Your task to perform on an android device: Go to accessibility settings Image 0: 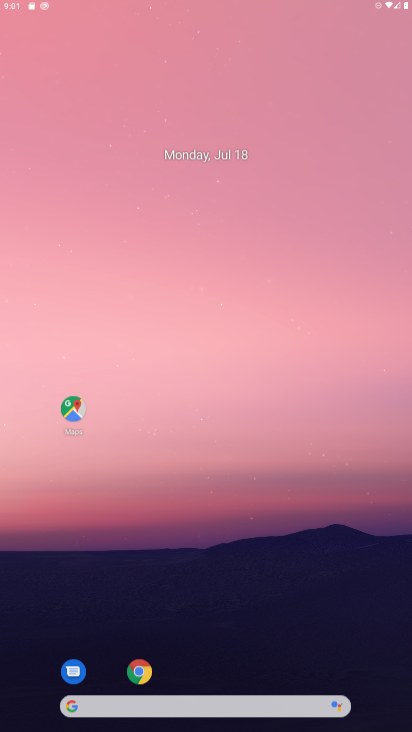
Step 0: press home button
Your task to perform on an android device: Go to accessibility settings Image 1: 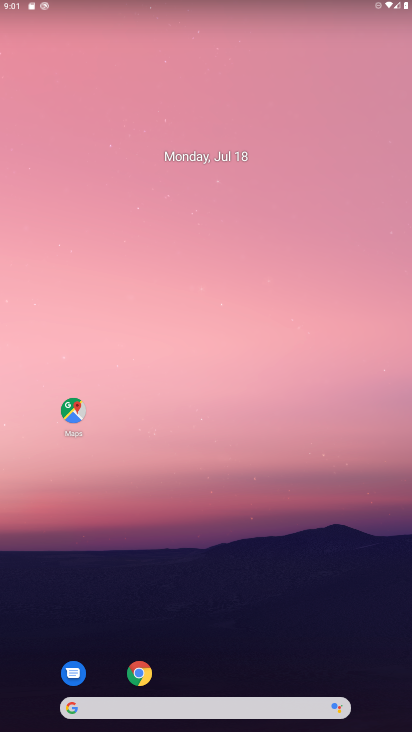
Step 1: drag from (274, 605) to (276, 69)
Your task to perform on an android device: Go to accessibility settings Image 2: 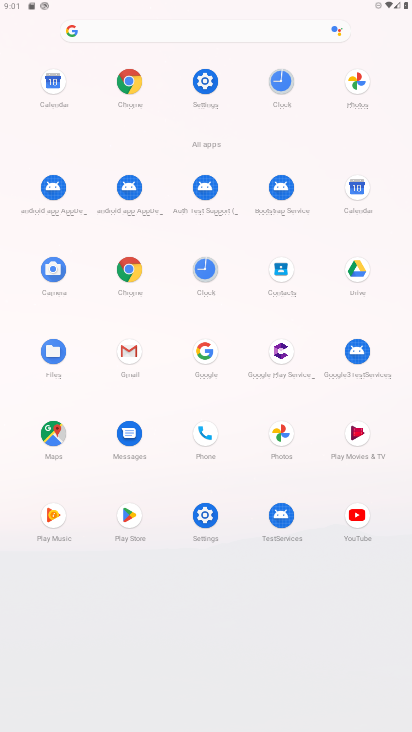
Step 2: click (207, 76)
Your task to perform on an android device: Go to accessibility settings Image 3: 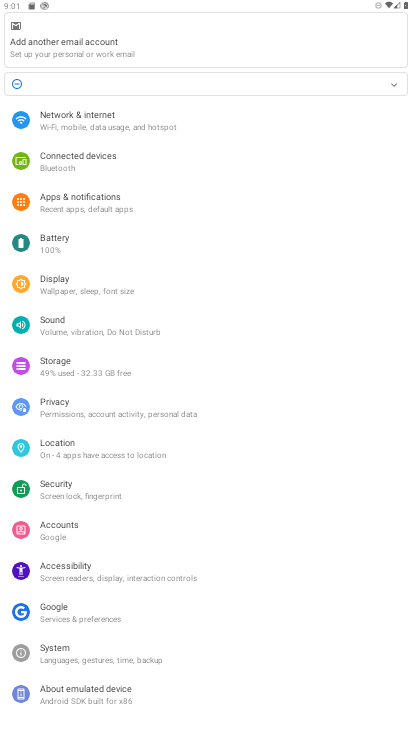
Step 3: click (59, 571)
Your task to perform on an android device: Go to accessibility settings Image 4: 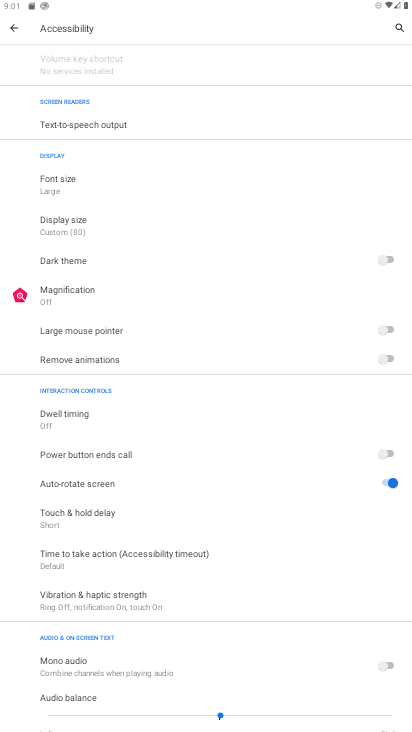
Step 4: task complete